Your task to perform on an android device: Go to Yahoo.com Image 0: 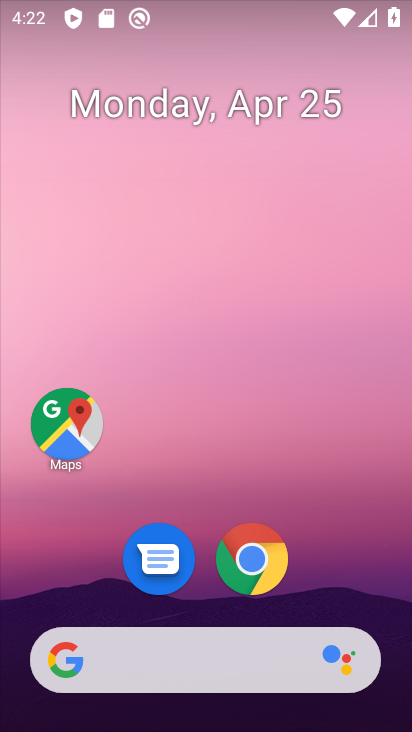
Step 0: click (272, 559)
Your task to perform on an android device: Go to Yahoo.com Image 1: 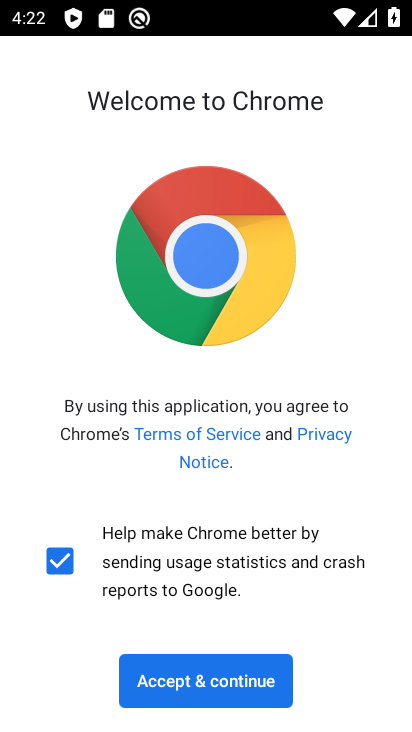
Step 1: click (172, 667)
Your task to perform on an android device: Go to Yahoo.com Image 2: 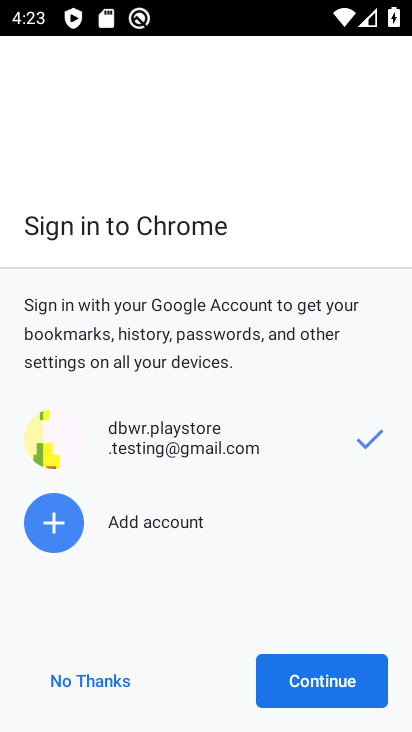
Step 2: click (315, 684)
Your task to perform on an android device: Go to Yahoo.com Image 3: 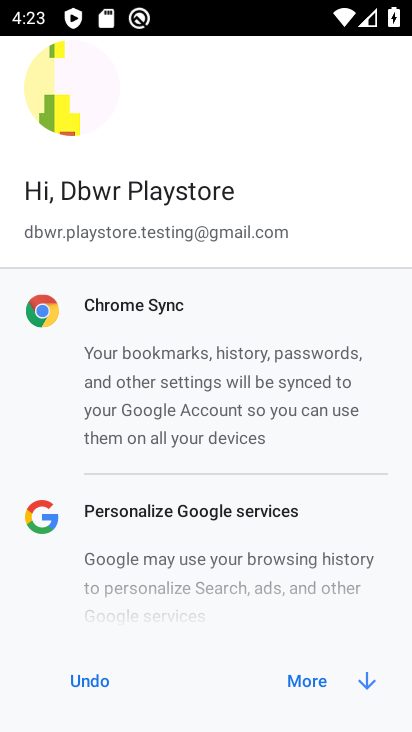
Step 3: click (311, 678)
Your task to perform on an android device: Go to Yahoo.com Image 4: 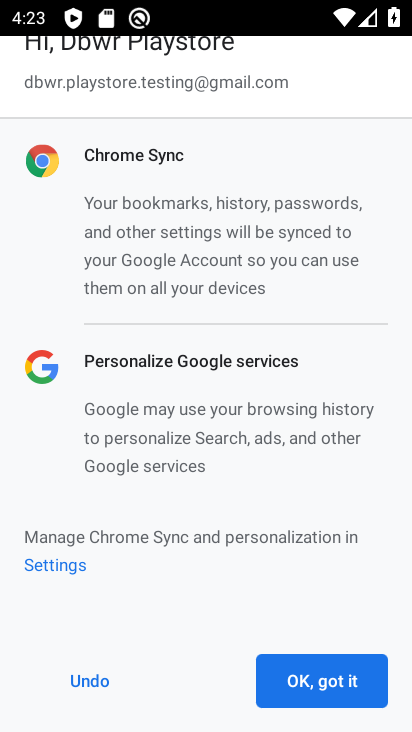
Step 4: click (311, 678)
Your task to perform on an android device: Go to Yahoo.com Image 5: 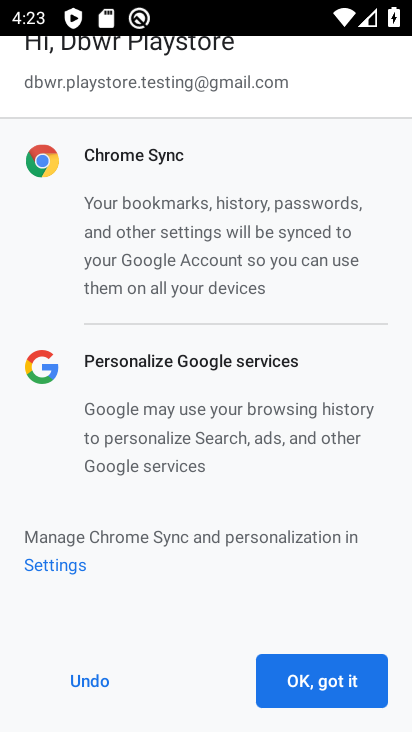
Step 5: click (311, 678)
Your task to perform on an android device: Go to Yahoo.com Image 6: 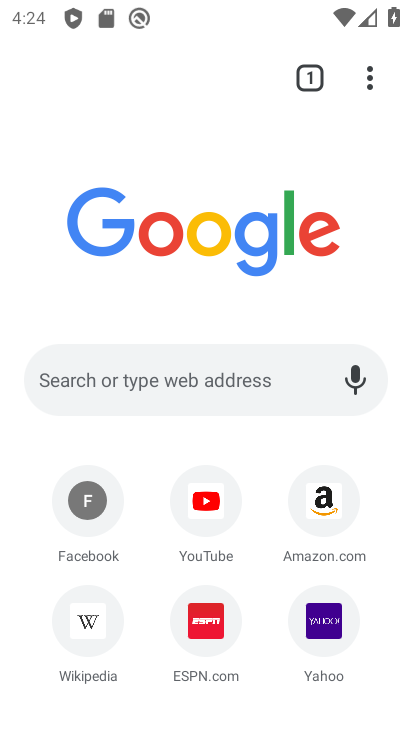
Step 6: click (311, 678)
Your task to perform on an android device: Go to Yahoo.com Image 7: 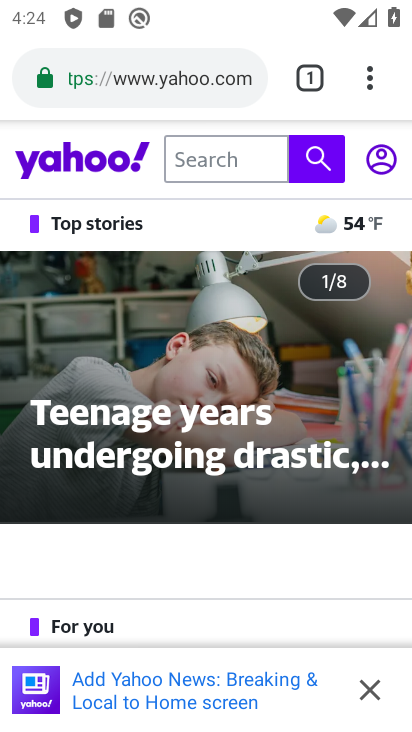
Step 7: task complete